Your task to perform on an android device: turn off javascript in the chrome app Image 0: 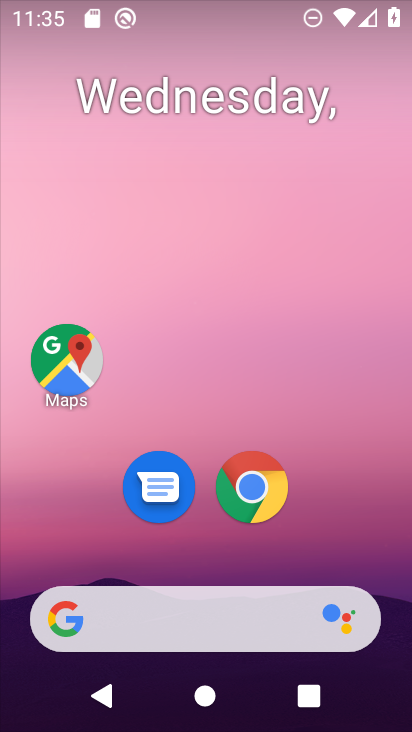
Step 0: click (258, 488)
Your task to perform on an android device: turn off javascript in the chrome app Image 1: 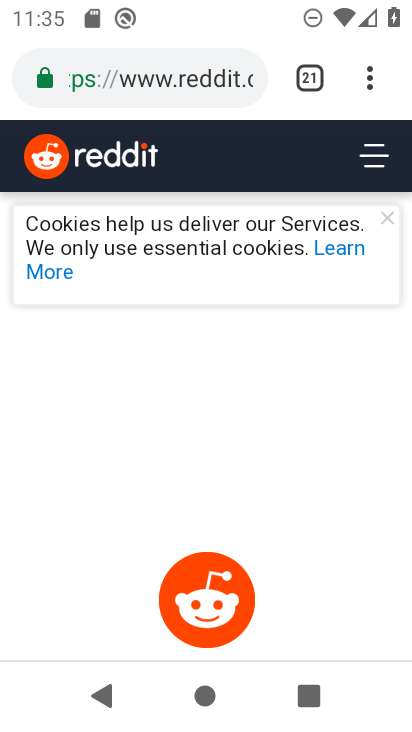
Step 1: click (365, 73)
Your task to perform on an android device: turn off javascript in the chrome app Image 2: 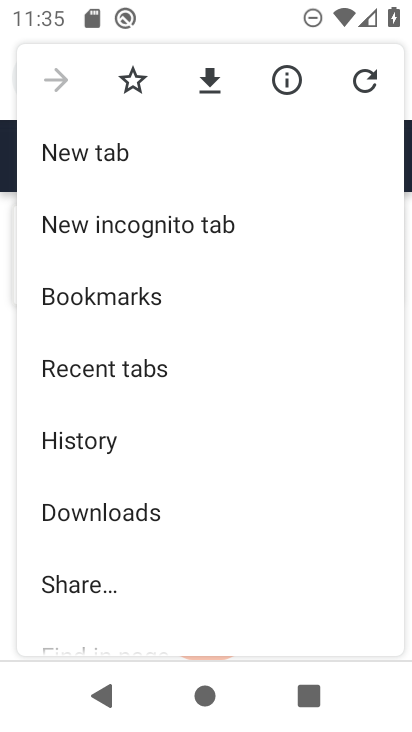
Step 2: drag from (214, 516) to (248, 207)
Your task to perform on an android device: turn off javascript in the chrome app Image 3: 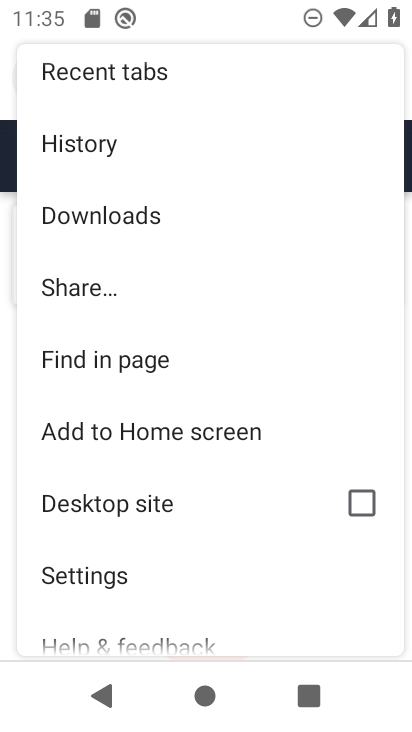
Step 3: drag from (215, 533) to (198, 278)
Your task to perform on an android device: turn off javascript in the chrome app Image 4: 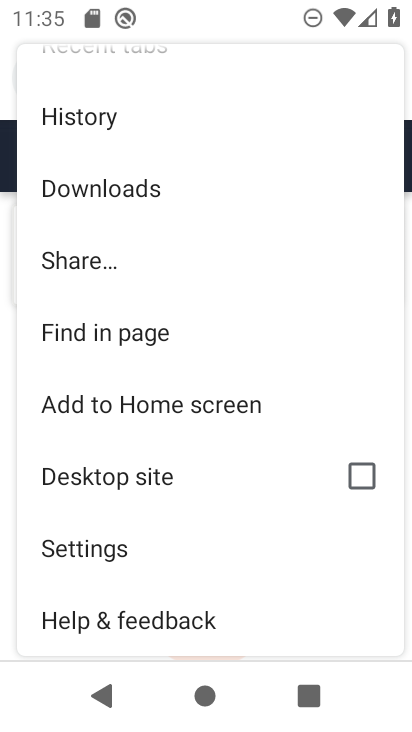
Step 4: click (92, 550)
Your task to perform on an android device: turn off javascript in the chrome app Image 5: 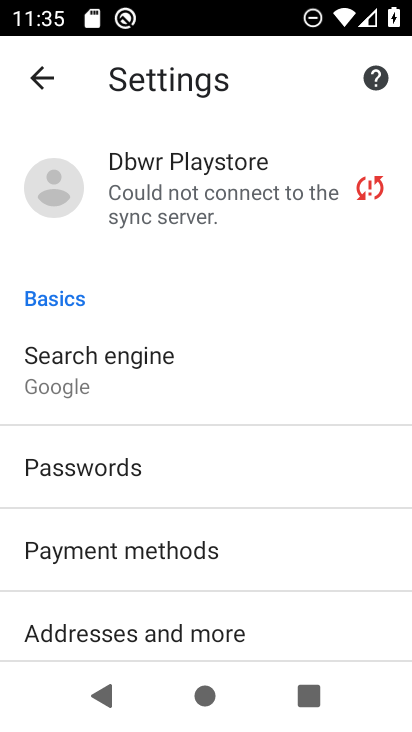
Step 5: drag from (244, 493) to (222, 148)
Your task to perform on an android device: turn off javascript in the chrome app Image 6: 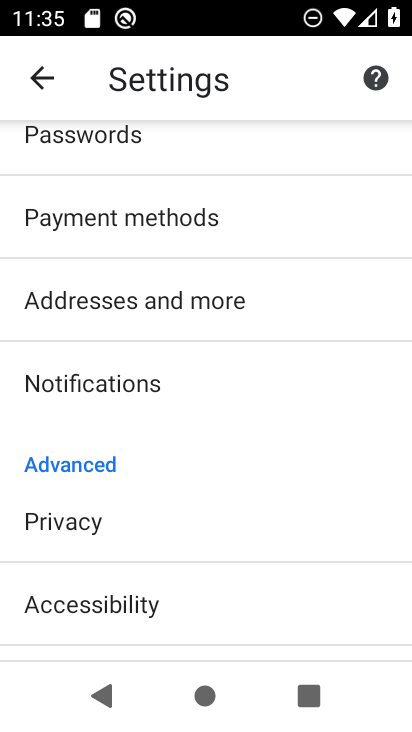
Step 6: drag from (286, 520) to (275, 286)
Your task to perform on an android device: turn off javascript in the chrome app Image 7: 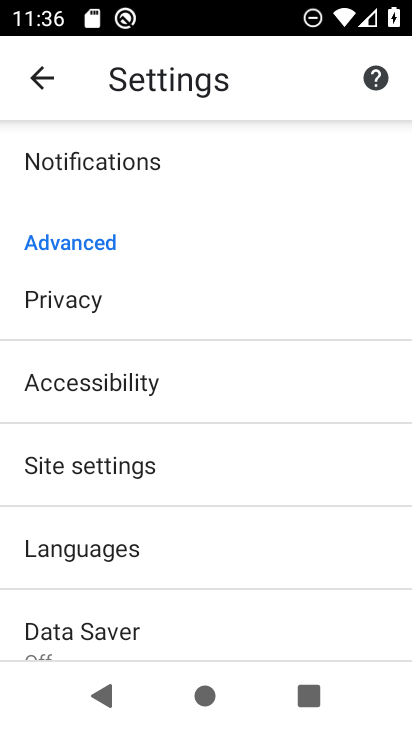
Step 7: click (110, 462)
Your task to perform on an android device: turn off javascript in the chrome app Image 8: 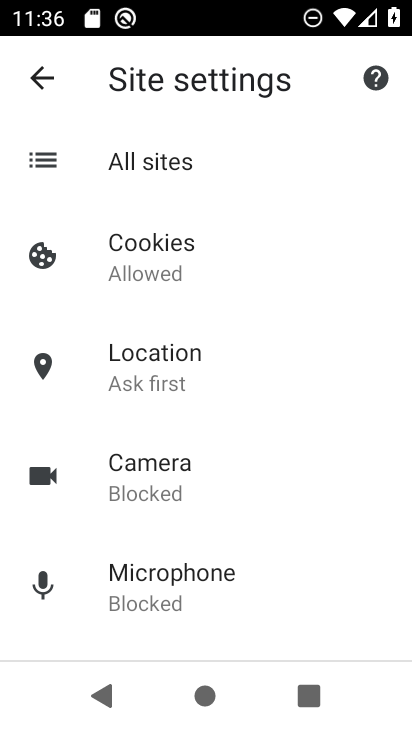
Step 8: drag from (252, 456) to (246, 207)
Your task to perform on an android device: turn off javascript in the chrome app Image 9: 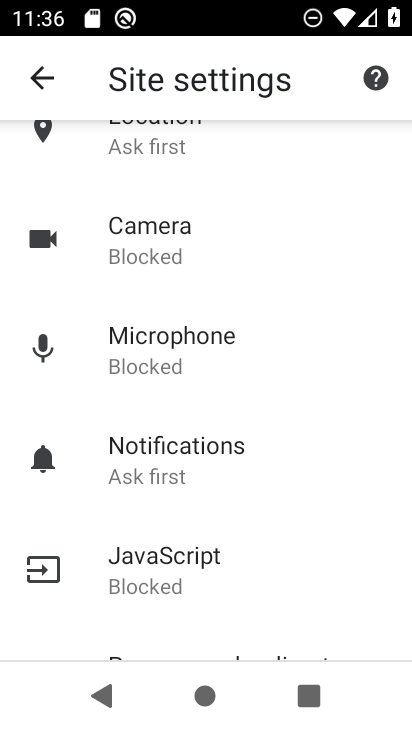
Step 9: click (179, 556)
Your task to perform on an android device: turn off javascript in the chrome app Image 10: 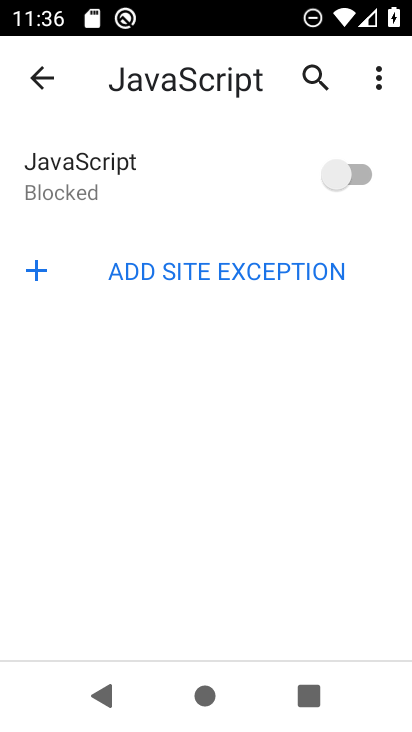
Step 10: task complete